Your task to perform on an android device: What's the weather going to be this weekend? Image 0: 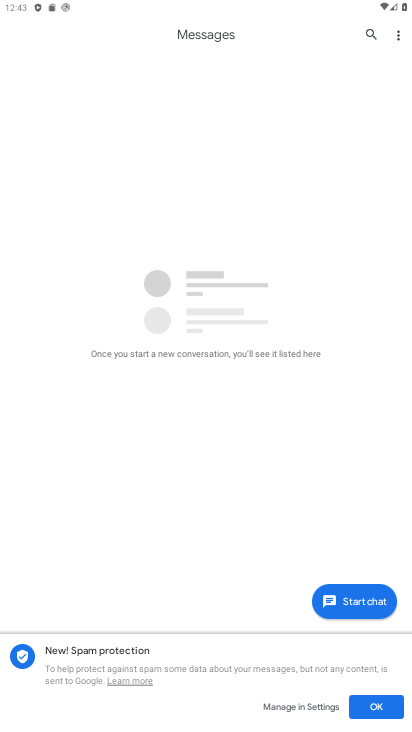
Step 0: press home button
Your task to perform on an android device: What's the weather going to be this weekend? Image 1: 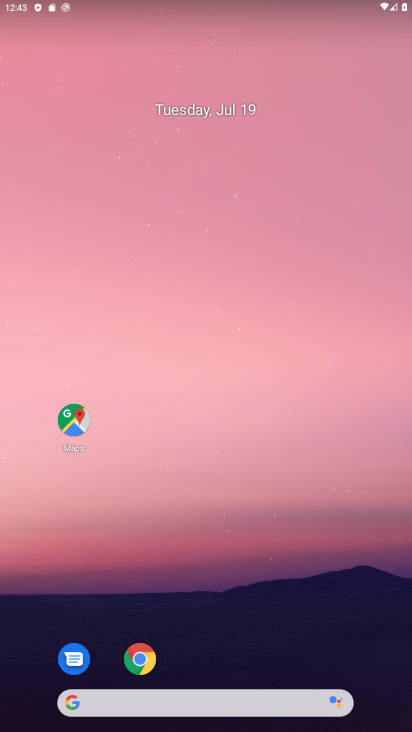
Step 1: drag from (327, 655) to (244, 116)
Your task to perform on an android device: What's the weather going to be this weekend? Image 2: 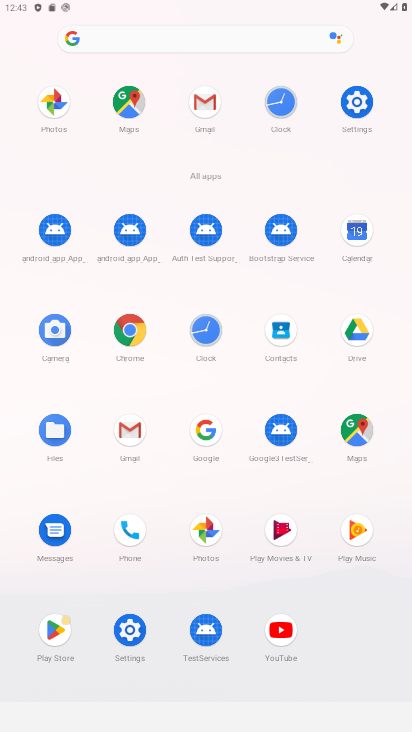
Step 2: click (135, 324)
Your task to perform on an android device: What's the weather going to be this weekend? Image 3: 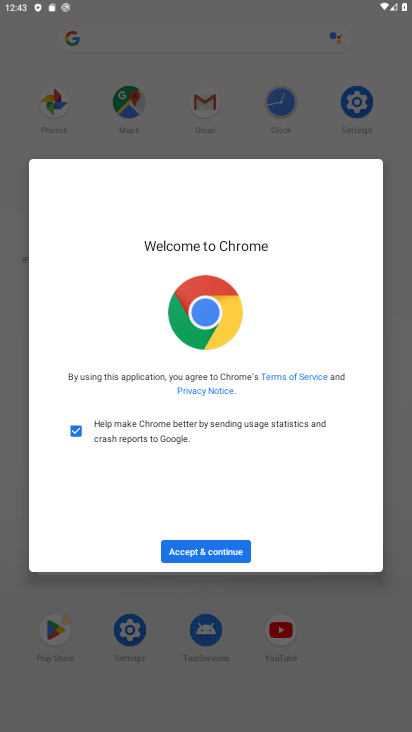
Step 3: click (178, 550)
Your task to perform on an android device: What's the weather going to be this weekend? Image 4: 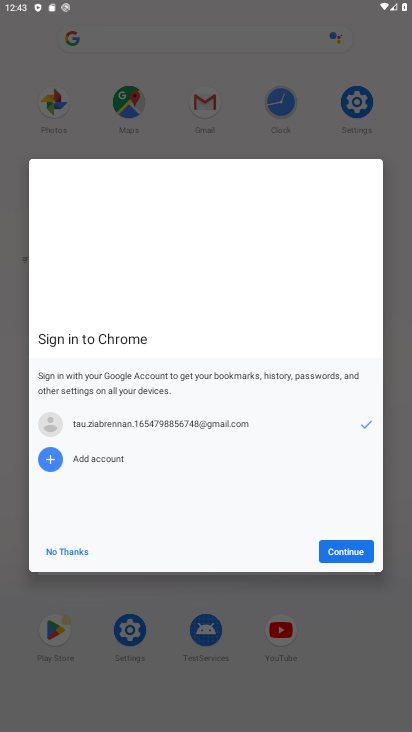
Step 4: click (339, 550)
Your task to perform on an android device: What's the weather going to be this weekend? Image 5: 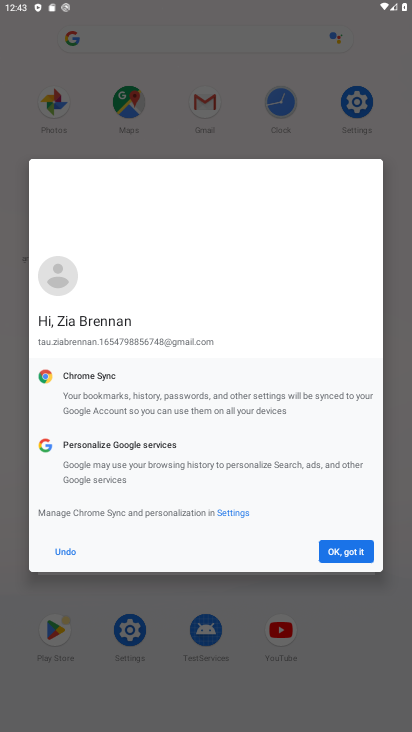
Step 5: click (339, 550)
Your task to perform on an android device: What's the weather going to be this weekend? Image 6: 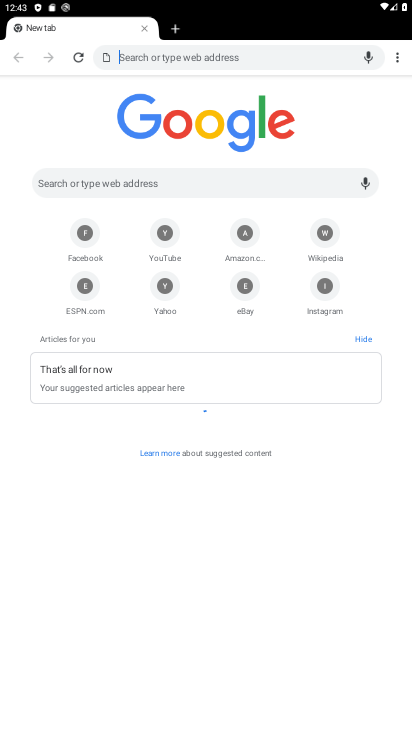
Step 6: click (396, 64)
Your task to perform on an android device: What's the weather going to be this weekend? Image 7: 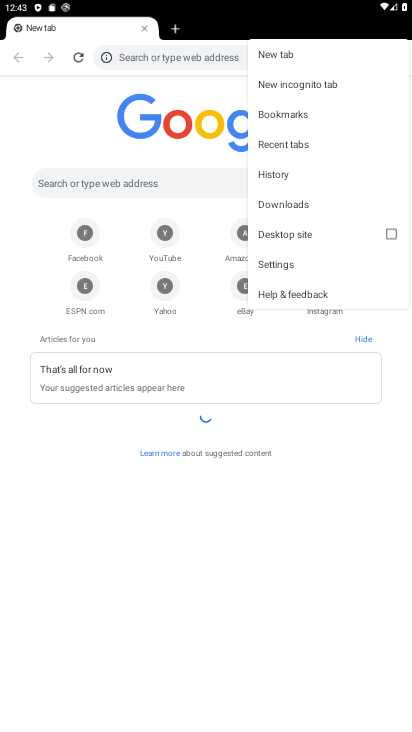
Step 7: click (40, 102)
Your task to perform on an android device: What's the weather going to be this weekend? Image 8: 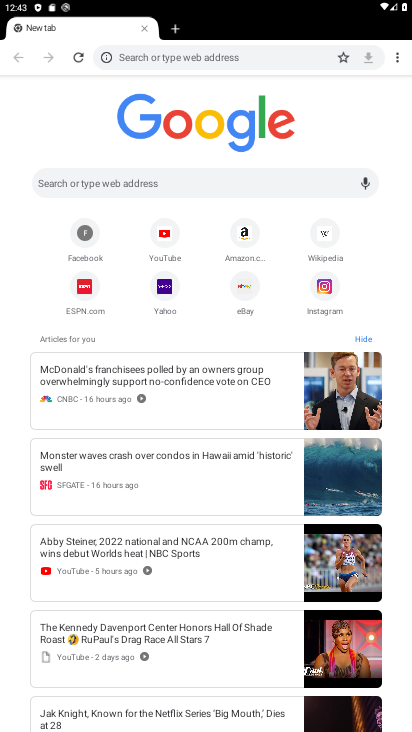
Step 8: click (272, 179)
Your task to perform on an android device: What's the weather going to be this weekend? Image 9: 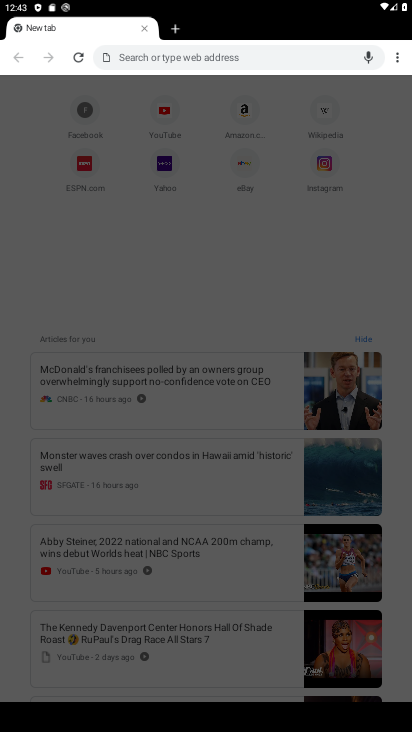
Step 9: type "What's the weather going to be this weekend?"
Your task to perform on an android device: What's the weather going to be this weekend? Image 10: 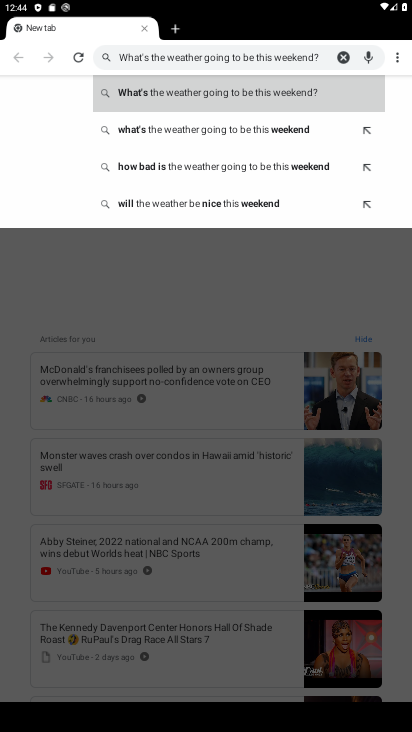
Step 10: click (295, 88)
Your task to perform on an android device: What's the weather going to be this weekend? Image 11: 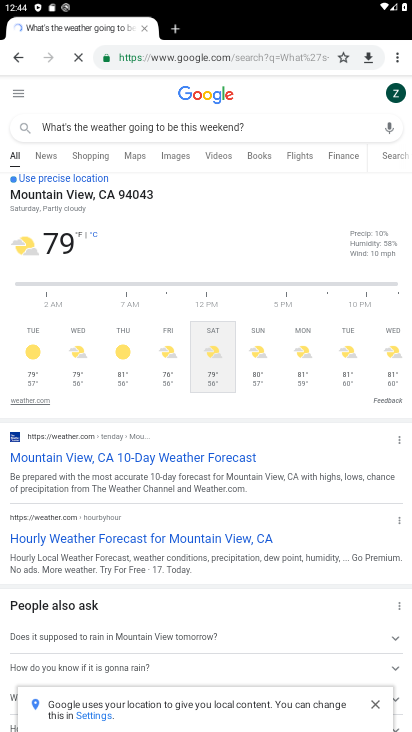
Step 11: task complete